Your task to perform on an android device: Show me recent news Image 0: 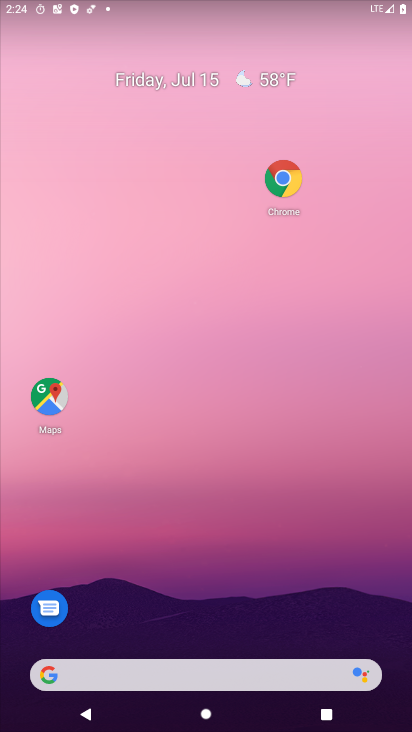
Step 0: drag from (227, 623) to (198, 160)
Your task to perform on an android device: Show me recent news Image 1: 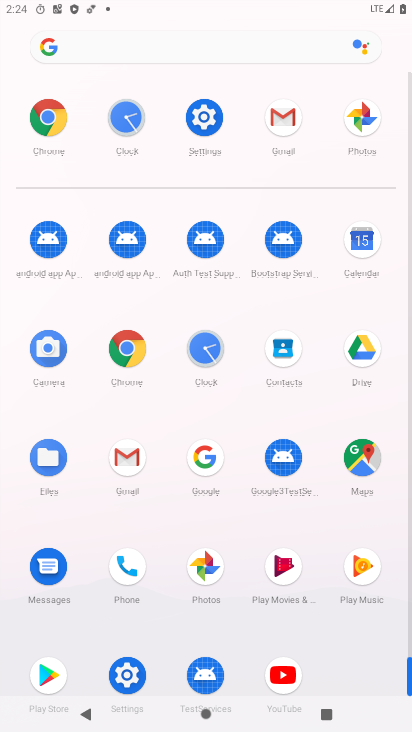
Step 1: click (122, 335)
Your task to perform on an android device: Show me recent news Image 2: 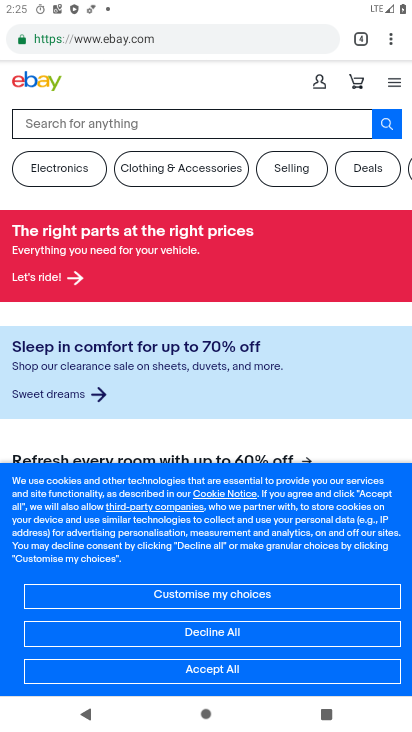
Step 2: click (228, 46)
Your task to perform on an android device: Show me recent news Image 3: 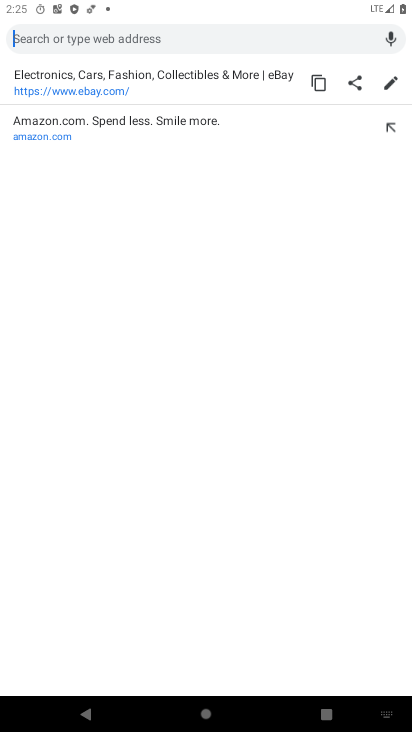
Step 3: type "Show me recent news"
Your task to perform on an android device: Show me recent news Image 4: 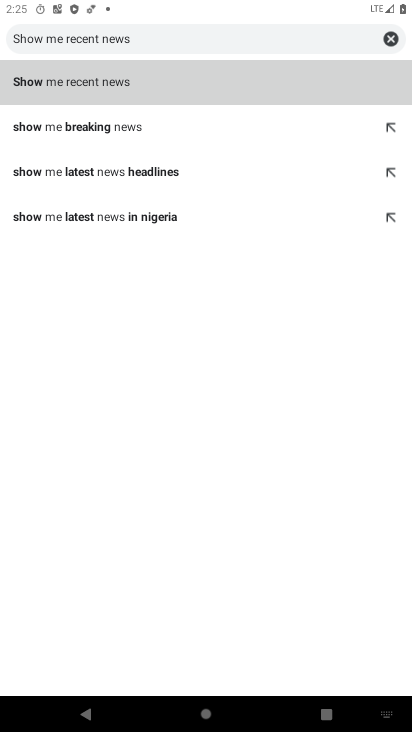
Step 4: click (92, 79)
Your task to perform on an android device: Show me recent news Image 5: 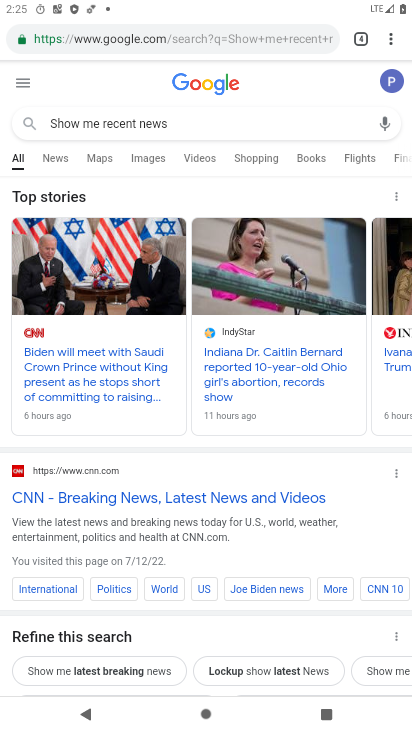
Step 5: click (54, 153)
Your task to perform on an android device: Show me recent news Image 6: 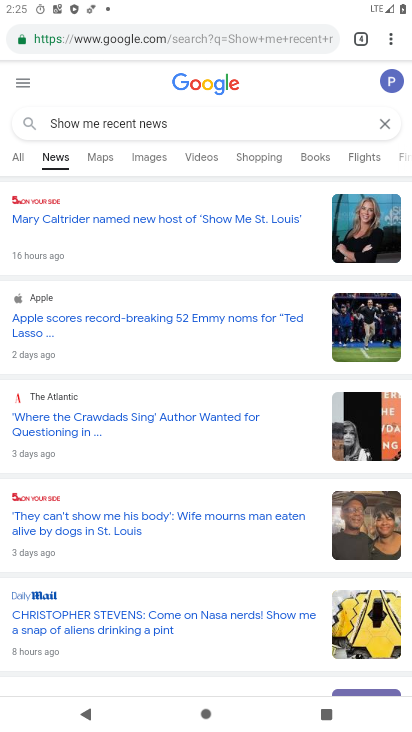
Step 6: task complete